Your task to perform on an android device: Go to network settings Image 0: 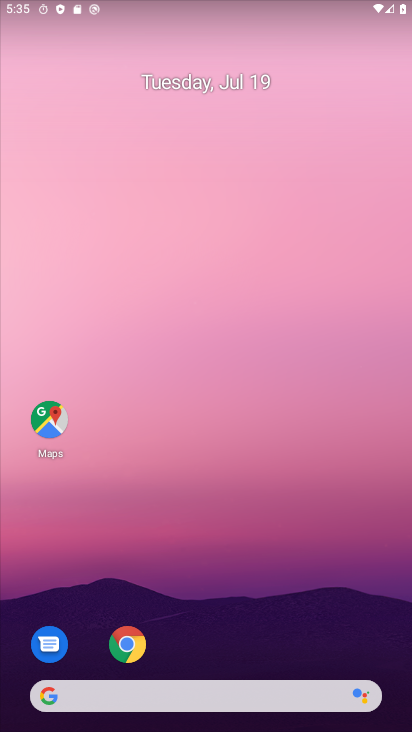
Step 0: drag from (199, 524) to (248, 218)
Your task to perform on an android device: Go to network settings Image 1: 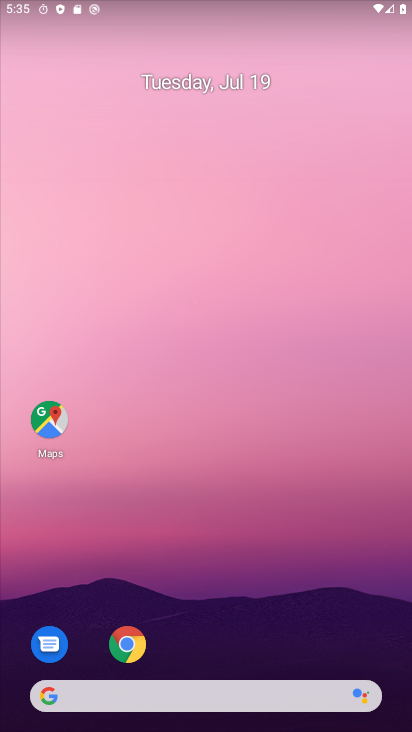
Step 1: drag from (218, 451) to (290, 105)
Your task to perform on an android device: Go to network settings Image 2: 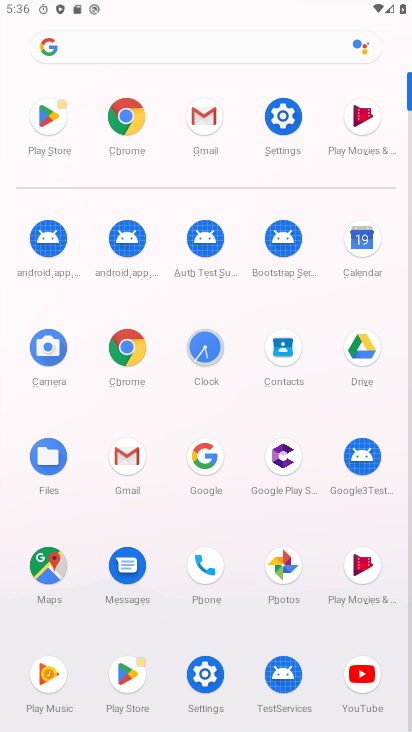
Step 2: click (213, 676)
Your task to perform on an android device: Go to network settings Image 3: 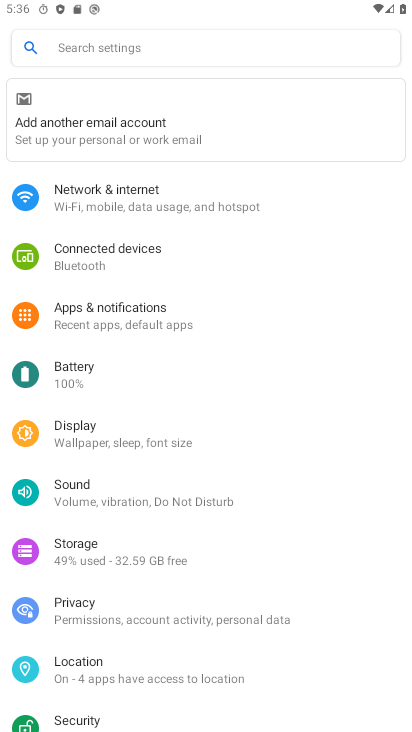
Step 3: click (88, 191)
Your task to perform on an android device: Go to network settings Image 4: 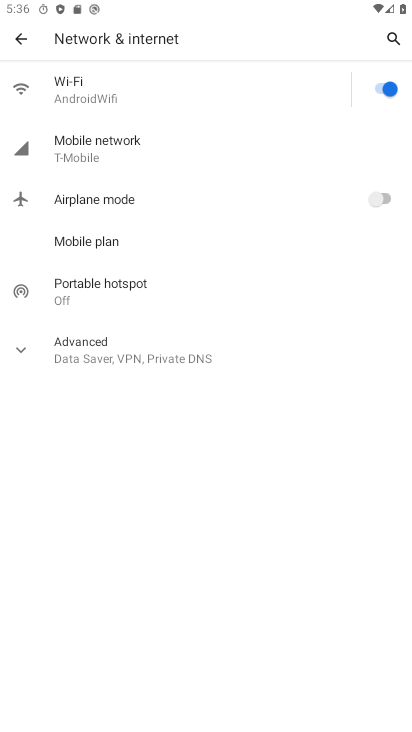
Step 4: task complete